Your task to perform on an android device: toggle sleep mode Image 0: 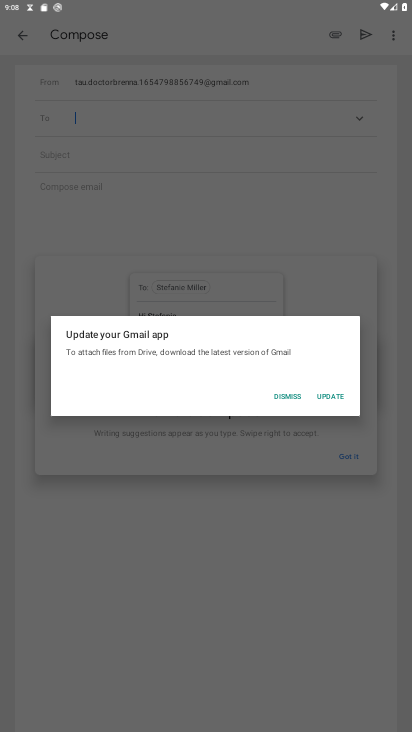
Step 0: press home button
Your task to perform on an android device: toggle sleep mode Image 1: 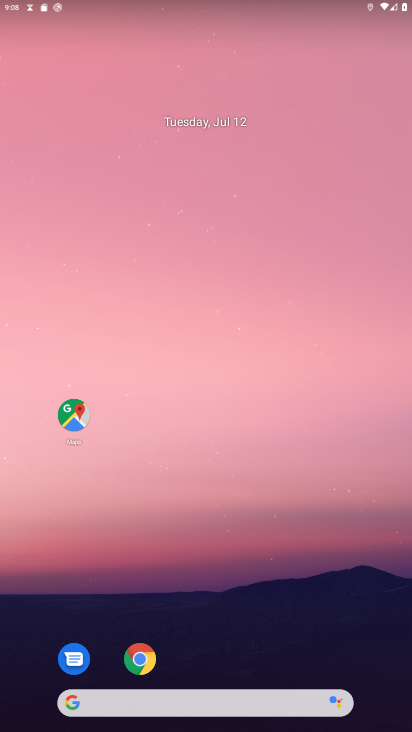
Step 1: drag from (252, 630) to (230, 39)
Your task to perform on an android device: toggle sleep mode Image 2: 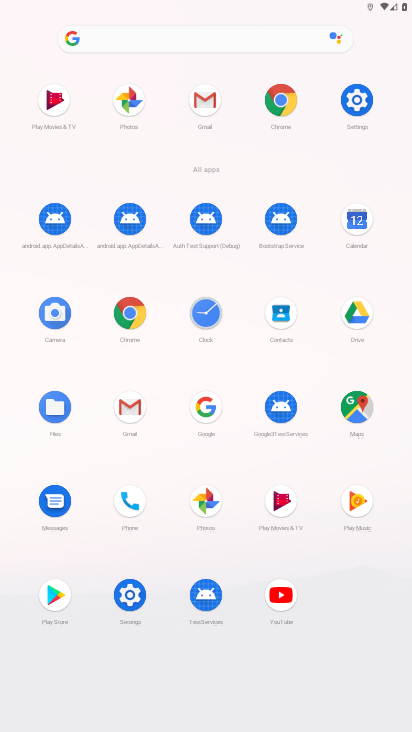
Step 2: click (140, 579)
Your task to perform on an android device: toggle sleep mode Image 3: 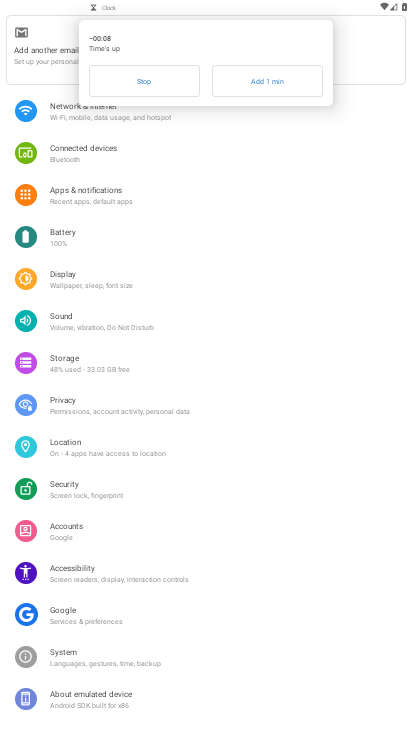
Step 3: click (57, 276)
Your task to perform on an android device: toggle sleep mode Image 4: 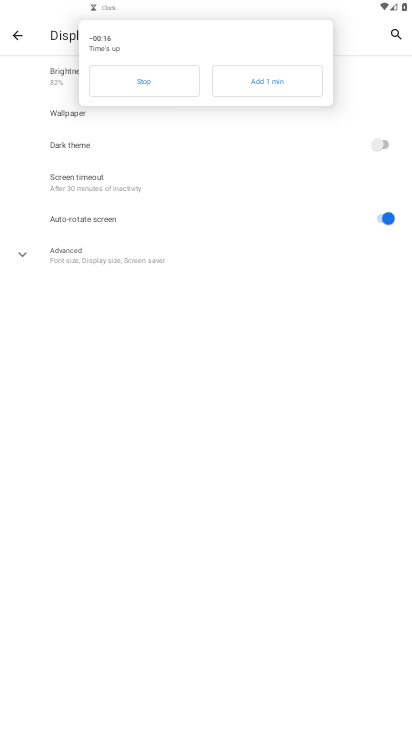
Step 4: click (165, 87)
Your task to perform on an android device: toggle sleep mode Image 5: 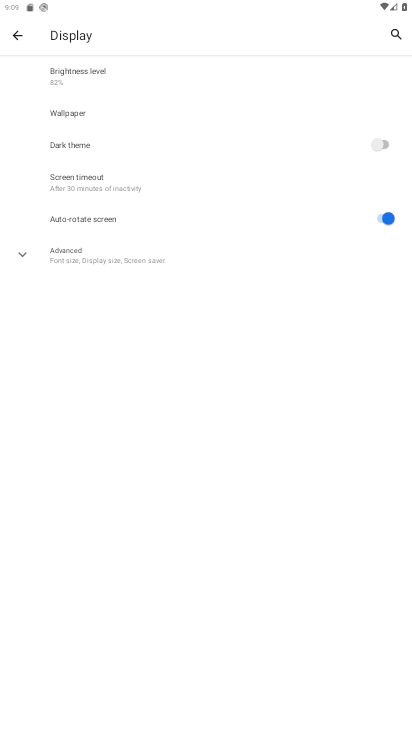
Step 5: click (86, 184)
Your task to perform on an android device: toggle sleep mode Image 6: 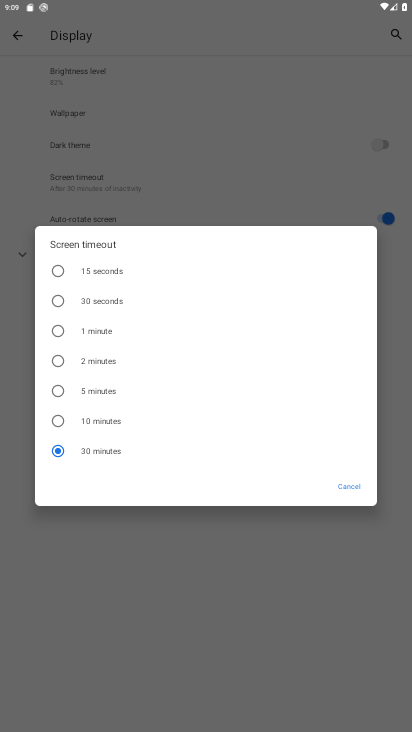
Step 6: click (82, 299)
Your task to perform on an android device: toggle sleep mode Image 7: 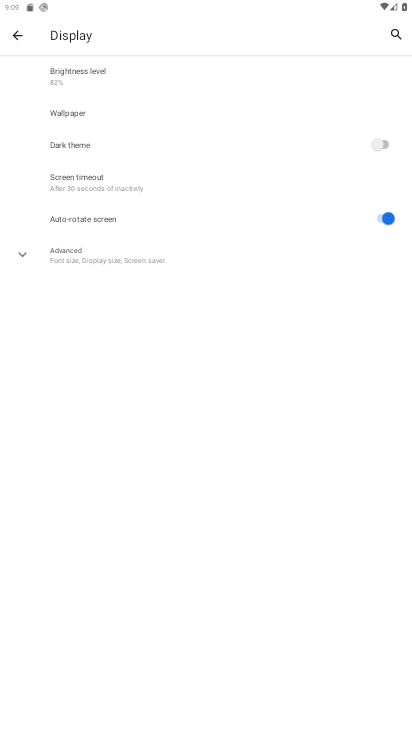
Step 7: task complete